Your task to perform on an android device: open the mobile data screen to see how much data has been used Image 0: 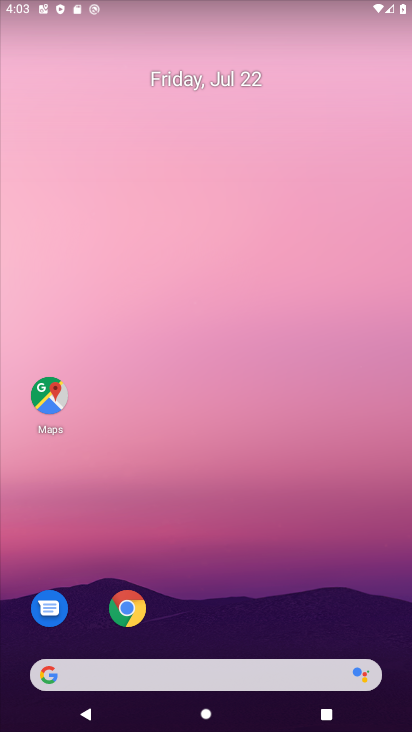
Step 0: drag from (233, 719) to (237, 194)
Your task to perform on an android device: open the mobile data screen to see how much data has been used Image 1: 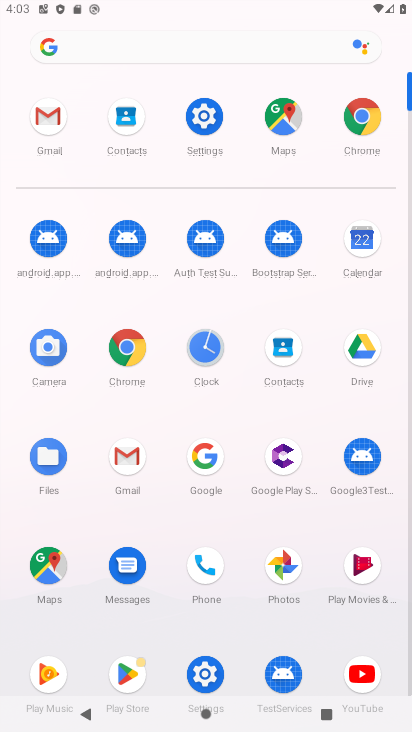
Step 1: click (203, 114)
Your task to perform on an android device: open the mobile data screen to see how much data has been used Image 2: 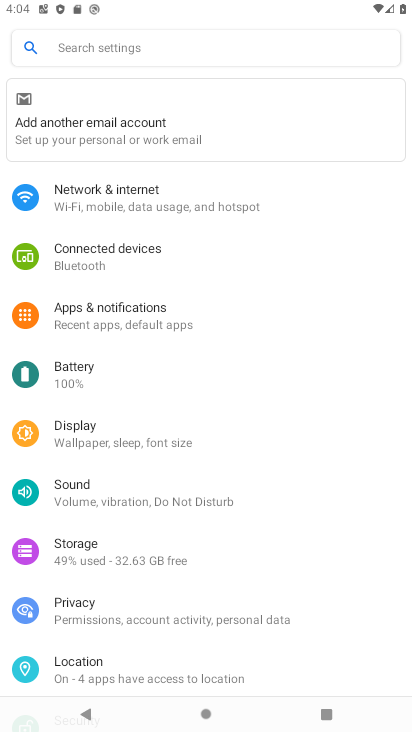
Step 2: click (136, 195)
Your task to perform on an android device: open the mobile data screen to see how much data has been used Image 3: 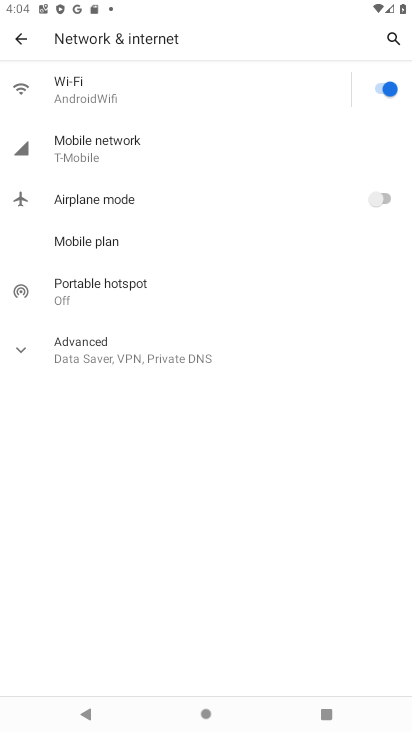
Step 3: click (94, 141)
Your task to perform on an android device: open the mobile data screen to see how much data has been used Image 4: 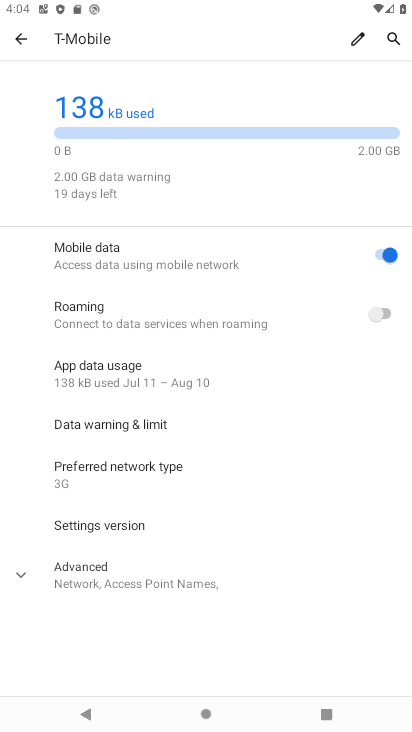
Step 4: click (102, 374)
Your task to perform on an android device: open the mobile data screen to see how much data has been used Image 5: 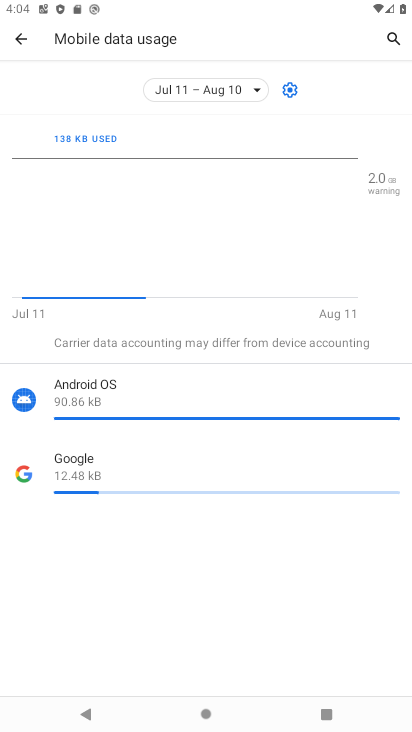
Step 5: task complete